Your task to perform on an android device: Go to notification settings Image 0: 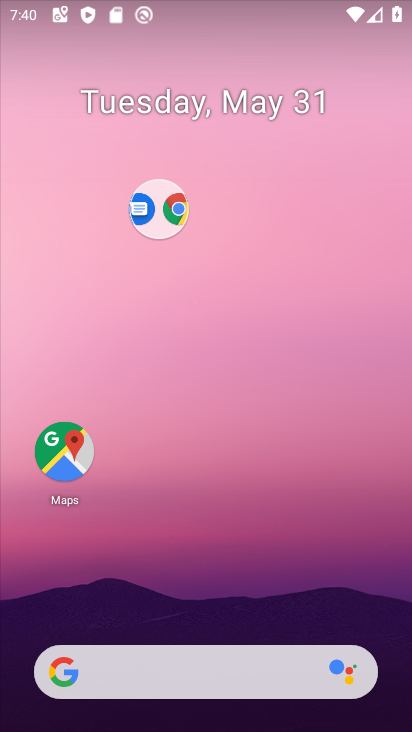
Step 0: drag from (179, 595) to (176, 177)
Your task to perform on an android device: Go to notification settings Image 1: 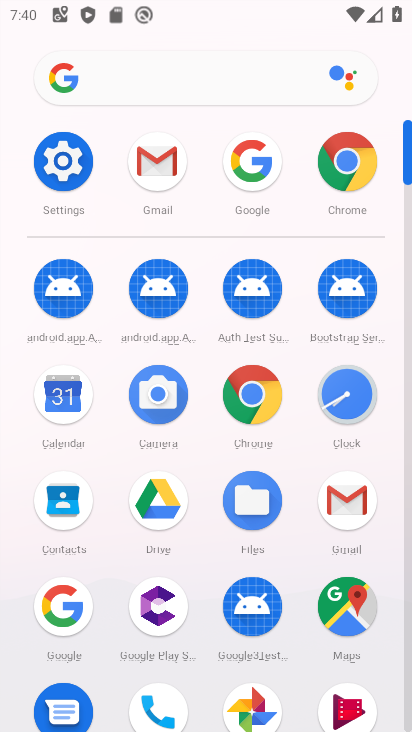
Step 1: click (70, 179)
Your task to perform on an android device: Go to notification settings Image 2: 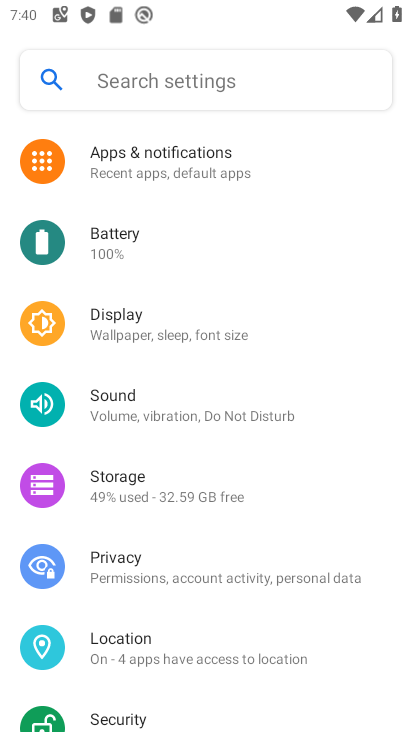
Step 2: click (56, 226)
Your task to perform on an android device: Go to notification settings Image 3: 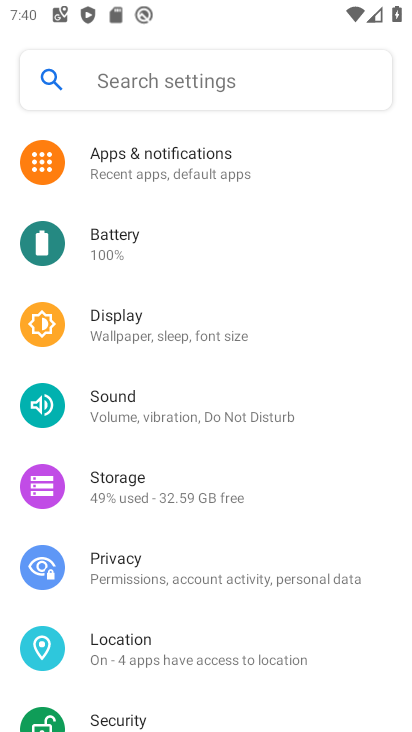
Step 3: click (180, 191)
Your task to perform on an android device: Go to notification settings Image 4: 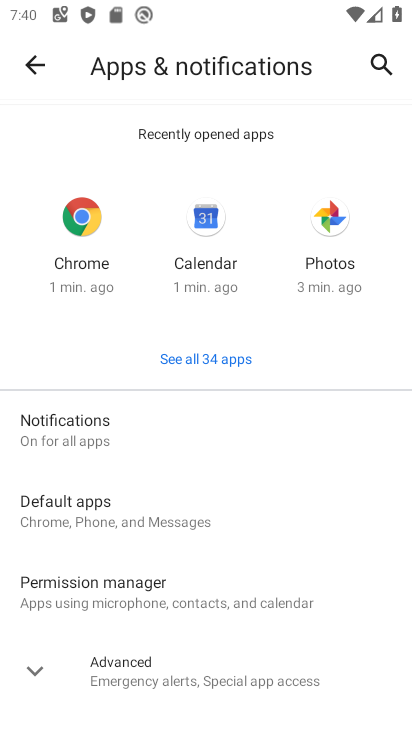
Step 4: click (55, 417)
Your task to perform on an android device: Go to notification settings Image 5: 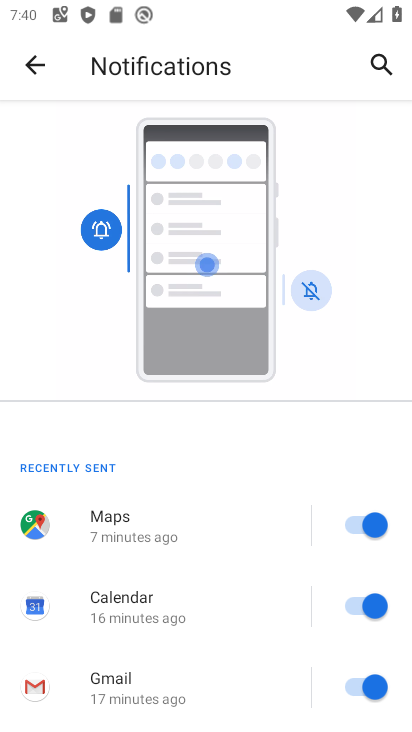
Step 5: task complete